Your task to perform on an android device: turn off javascript in the chrome app Image 0: 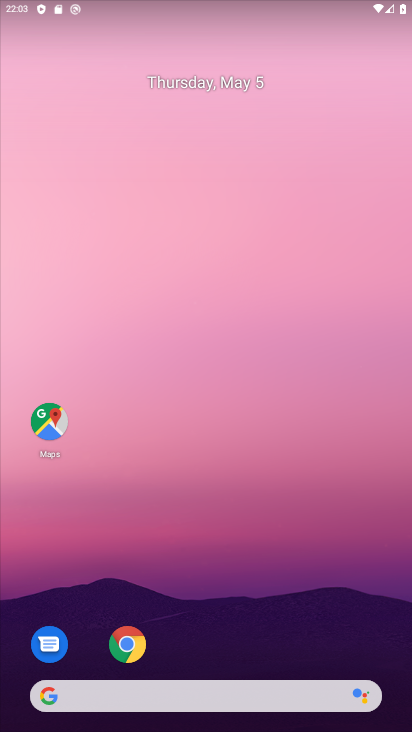
Step 0: click (125, 641)
Your task to perform on an android device: turn off javascript in the chrome app Image 1: 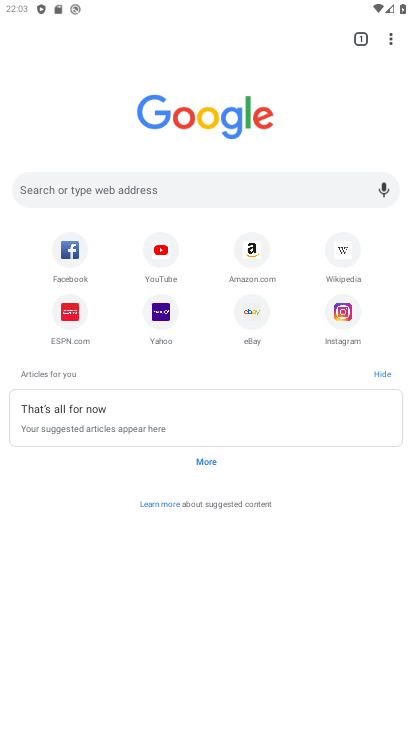
Step 1: click (282, 109)
Your task to perform on an android device: turn off javascript in the chrome app Image 2: 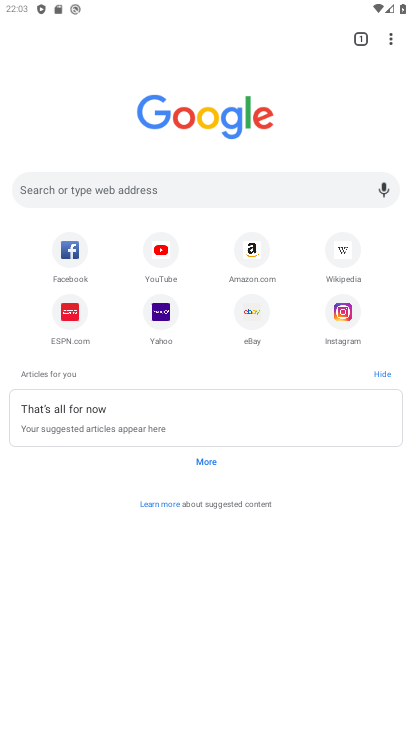
Step 2: click (390, 39)
Your task to perform on an android device: turn off javascript in the chrome app Image 3: 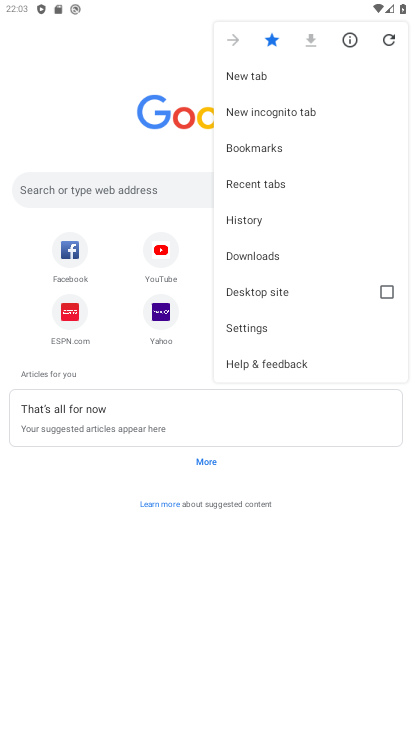
Step 3: click (246, 323)
Your task to perform on an android device: turn off javascript in the chrome app Image 4: 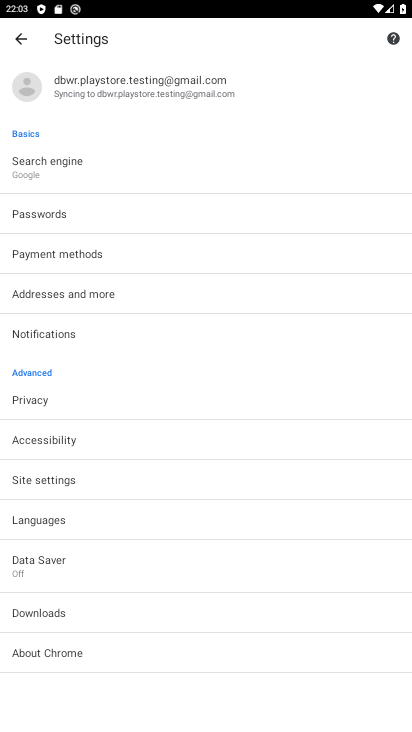
Step 4: click (31, 492)
Your task to perform on an android device: turn off javascript in the chrome app Image 5: 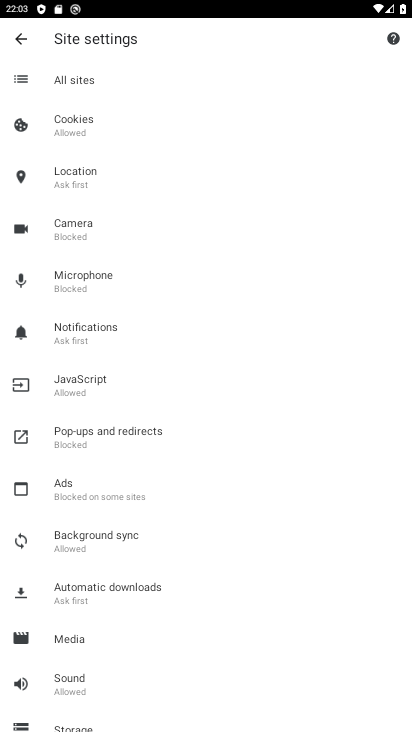
Step 5: click (69, 397)
Your task to perform on an android device: turn off javascript in the chrome app Image 6: 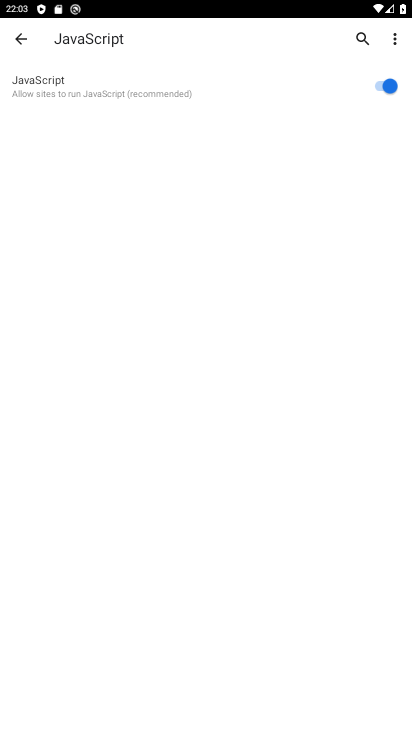
Step 6: click (369, 84)
Your task to perform on an android device: turn off javascript in the chrome app Image 7: 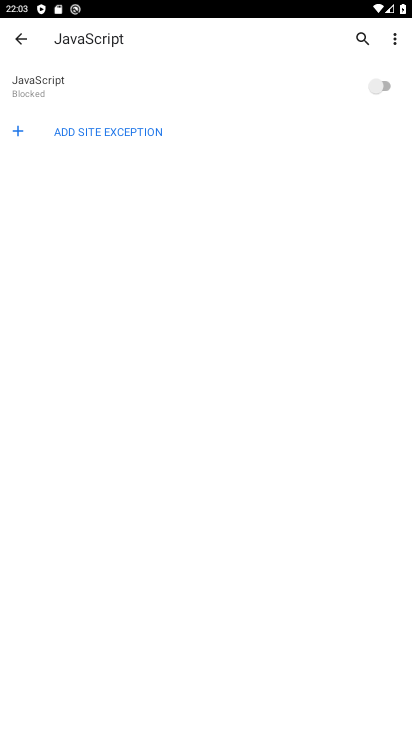
Step 7: task complete